Your task to perform on an android device: make emails show in primary in the gmail app Image 0: 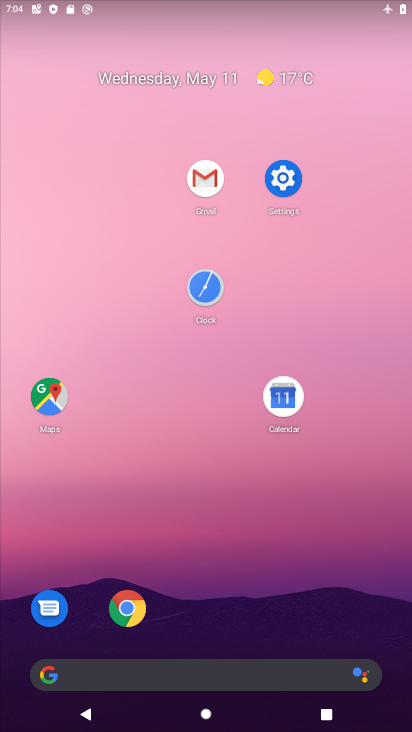
Step 0: click (195, 174)
Your task to perform on an android device: make emails show in primary in the gmail app Image 1: 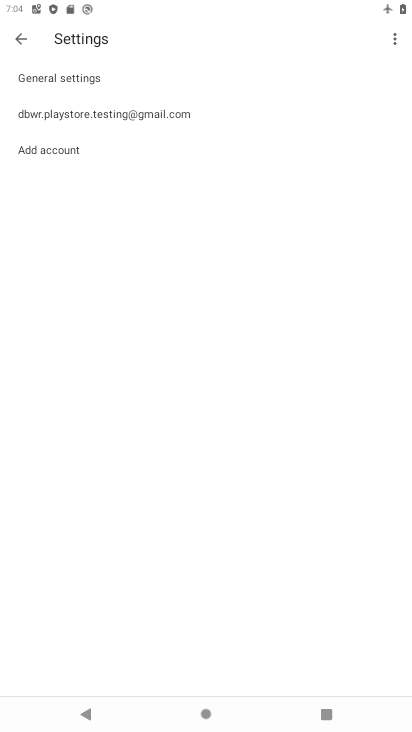
Step 1: click (182, 111)
Your task to perform on an android device: make emails show in primary in the gmail app Image 2: 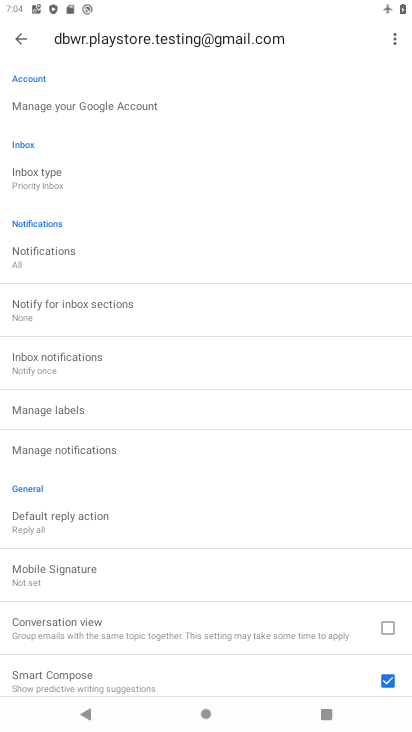
Step 2: click (138, 359)
Your task to perform on an android device: make emails show in primary in the gmail app Image 3: 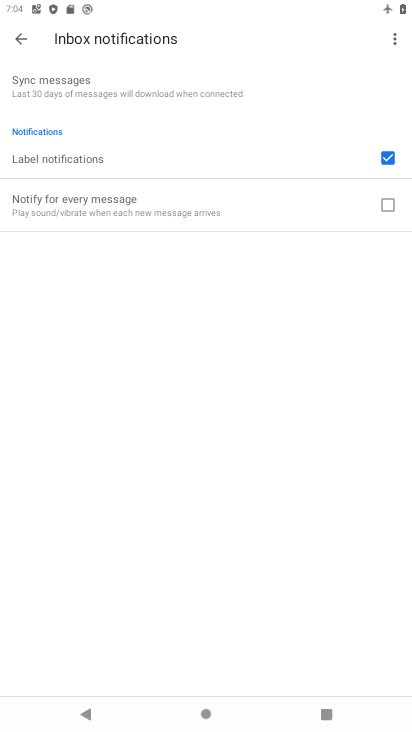
Step 3: click (23, 33)
Your task to perform on an android device: make emails show in primary in the gmail app Image 4: 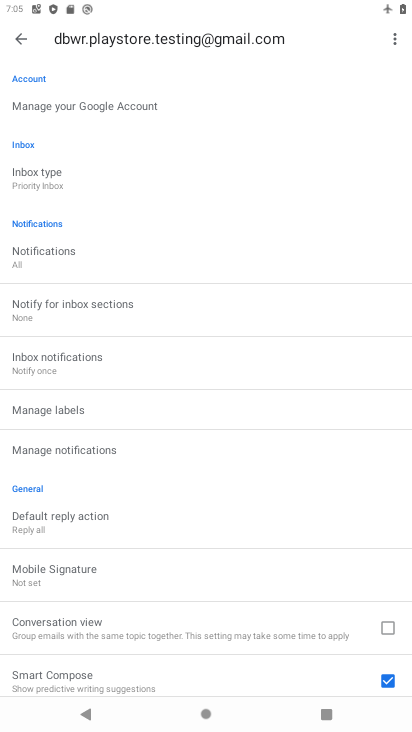
Step 4: click (168, 327)
Your task to perform on an android device: make emails show in primary in the gmail app Image 5: 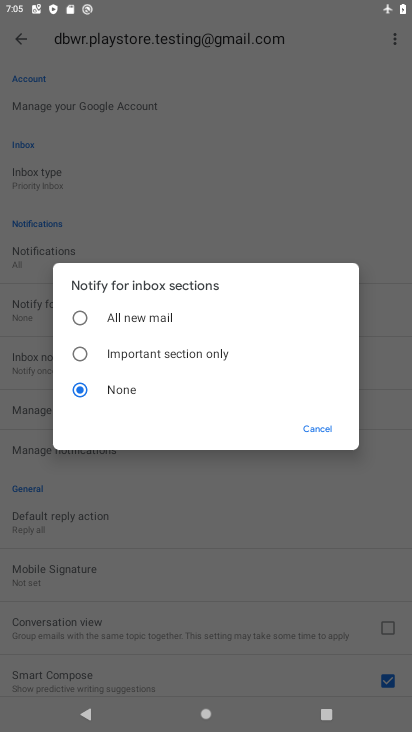
Step 5: click (168, 327)
Your task to perform on an android device: make emails show in primary in the gmail app Image 6: 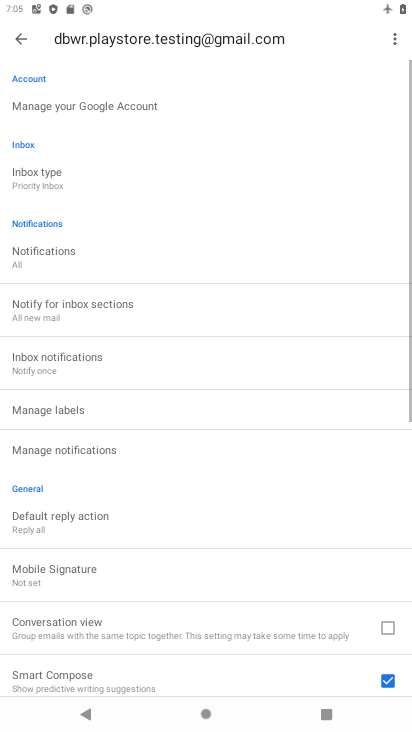
Step 6: click (168, 327)
Your task to perform on an android device: make emails show in primary in the gmail app Image 7: 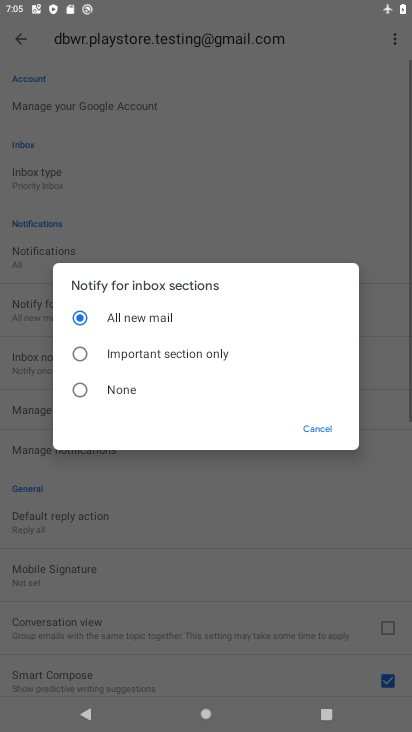
Step 7: task complete